Your task to perform on an android device: Go to accessibility settings Image 0: 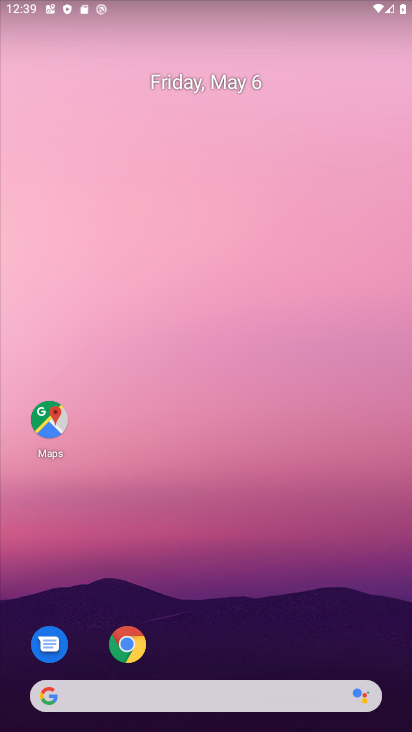
Step 0: drag from (266, 698) to (211, 95)
Your task to perform on an android device: Go to accessibility settings Image 1: 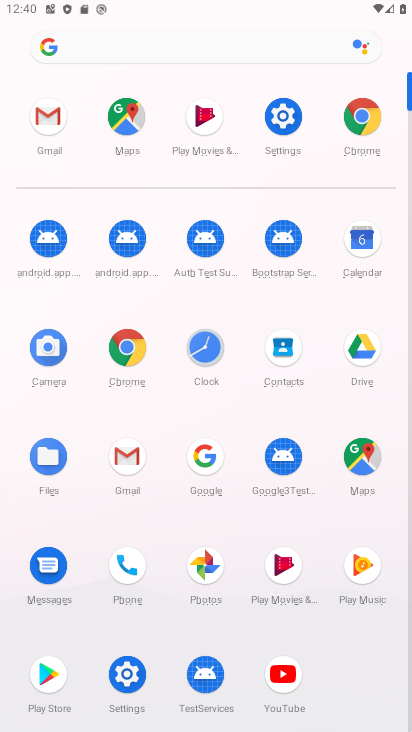
Step 1: task complete